Your task to perform on an android device: turn on showing notifications on the lock screen Image 0: 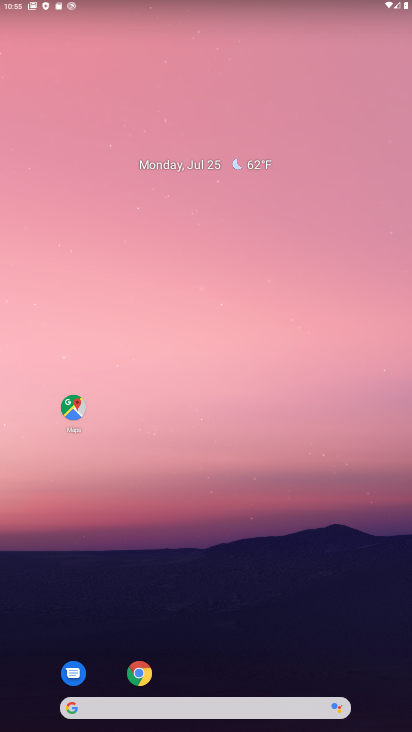
Step 0: drag from (249, 654) to (177, 63)
Your task to perform on an android device: turn on showing notifications on the lock screen Image 1: 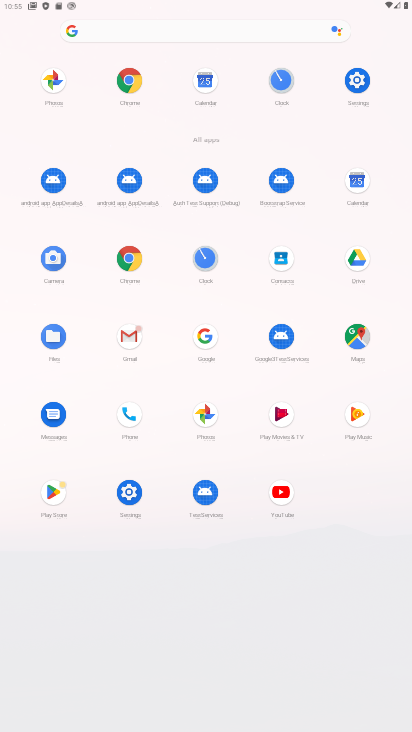
Step 1: click (119, 493)
Your task to perform on an android device: turn on showing notifications on the lock screen Image 2: 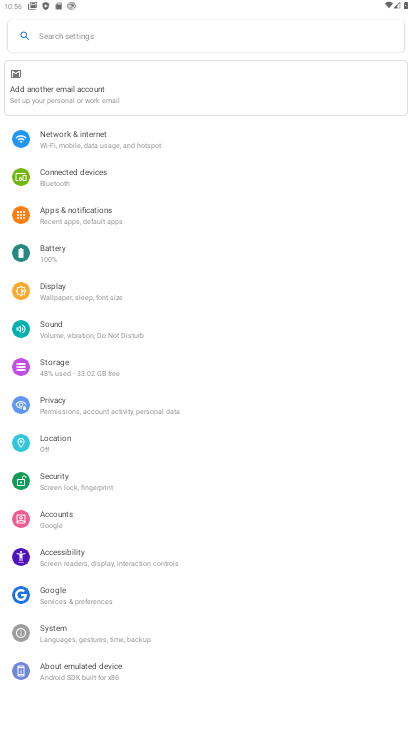
Step 2: click (93, 212)
Your task to perform on an android device: turn on showing notifications on the lock screen Image 3: 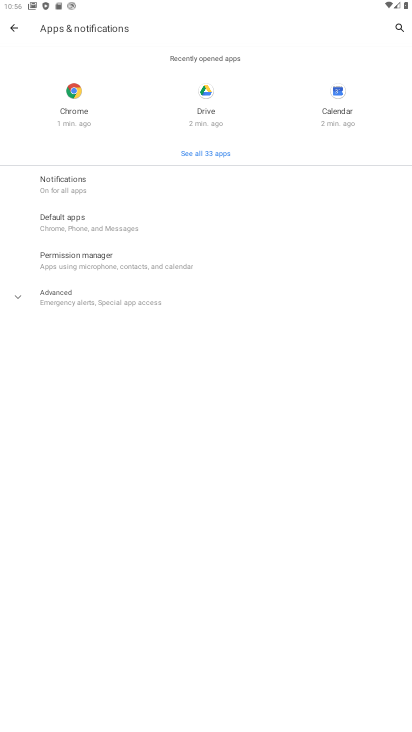
Step 3: click (84, 187)
Your task to perform on an android device: turn on showing notifications on the lock screen Image 4: 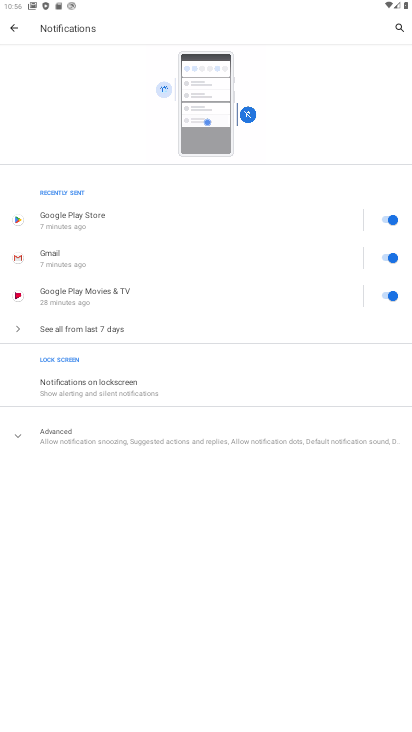
Step 4: click (79, 388)
Your task to perform on an android device: turn on showing notifications on the lock screen Image 5: 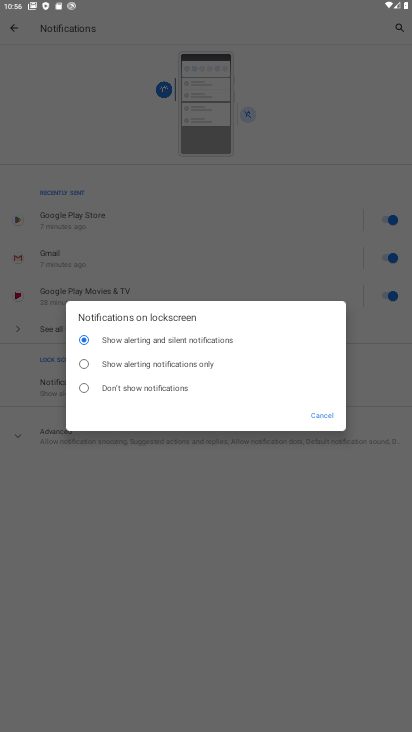
Step 5: click (134, 337)
Your task to perform on an android device: turn on showing notifications on the lock screen Image 6: 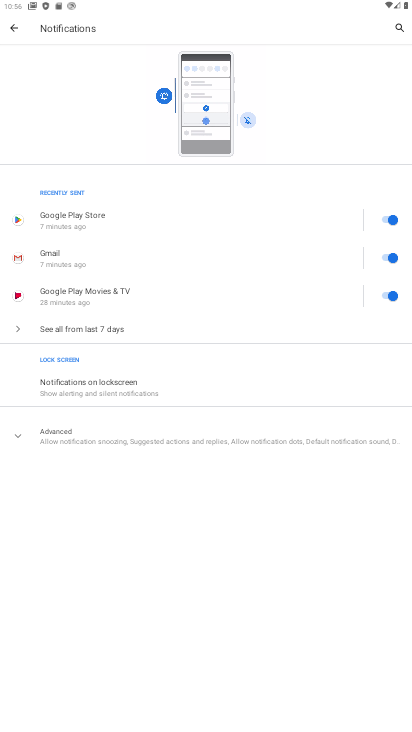
Step 6: task complete